Your task to perform on an android device: Go to Google Image 0: 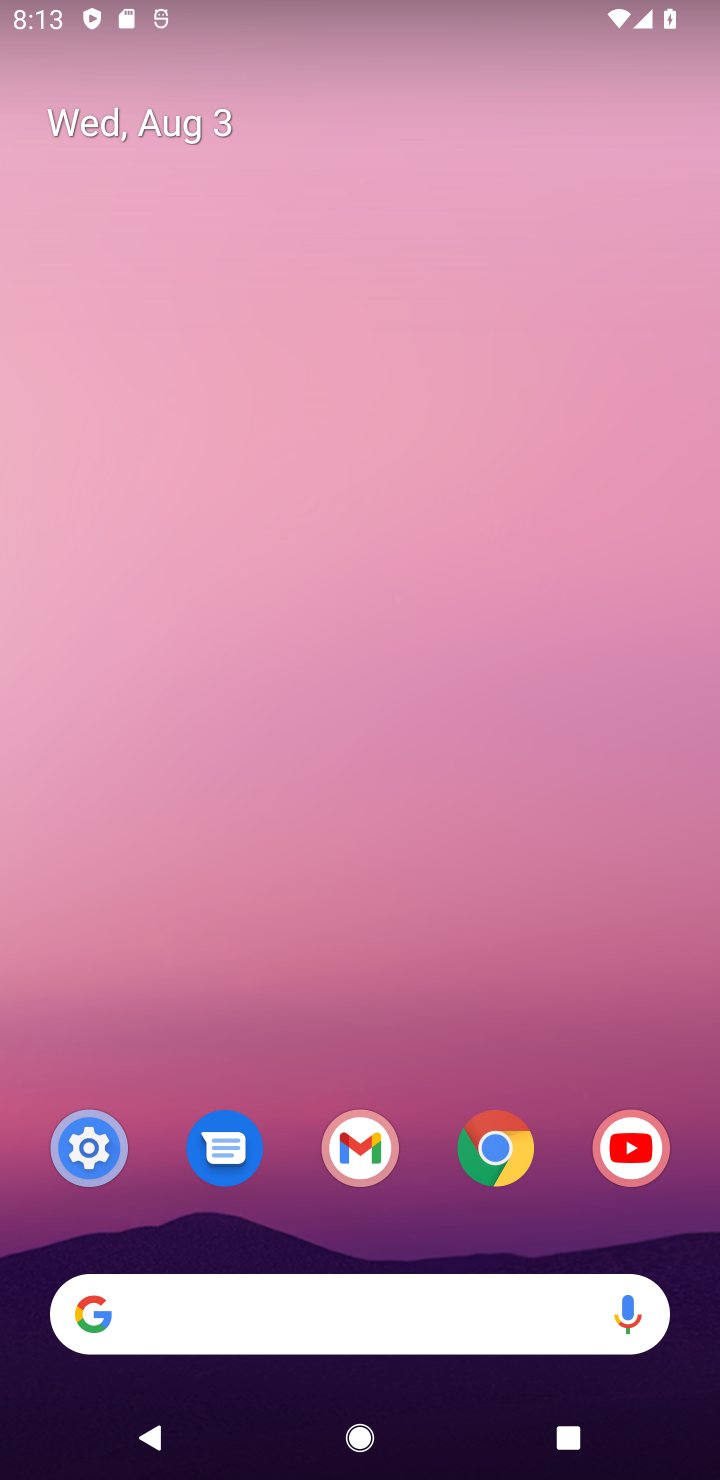
Step 0: click (159, 1322)
Your task to perform on an android device: Go to Google Image 1: 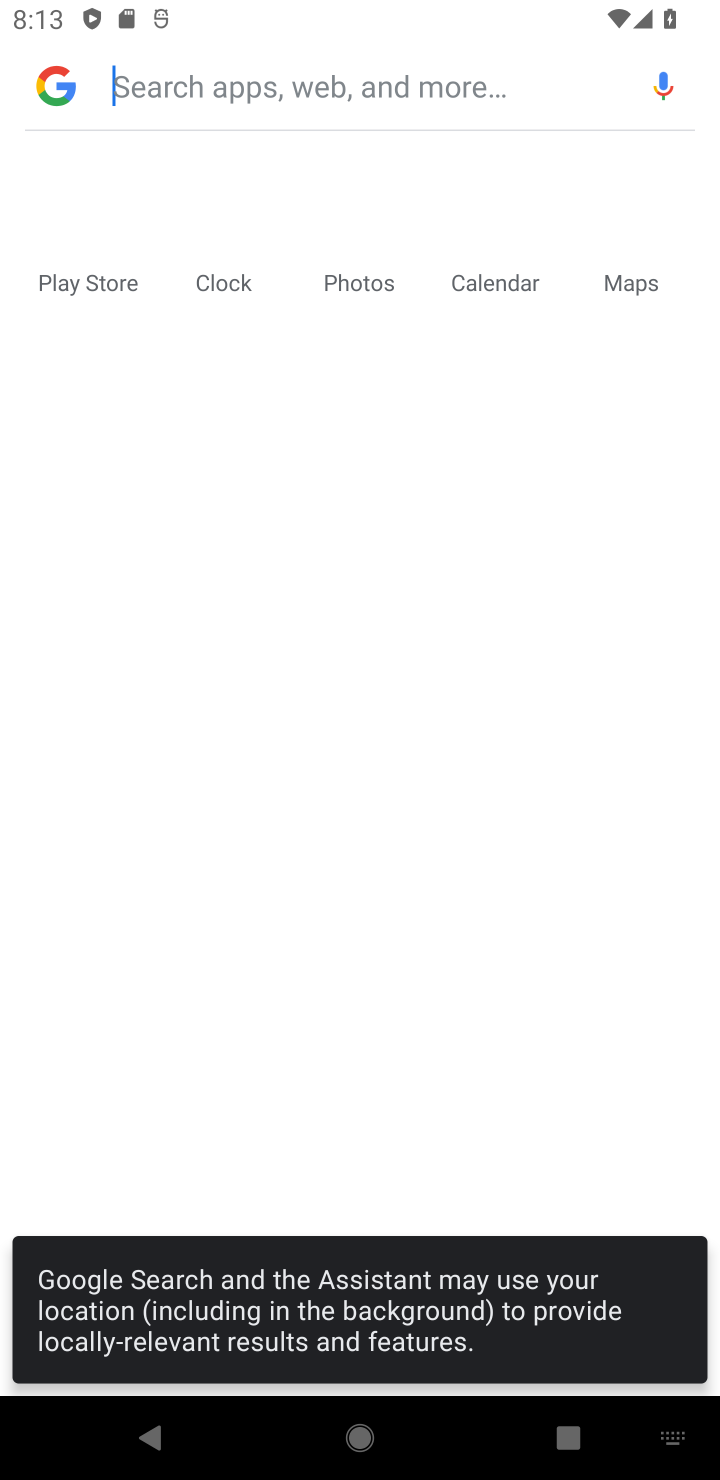
Step 1: task complete